Your task to perform on an android device: Open location settings Image 0: 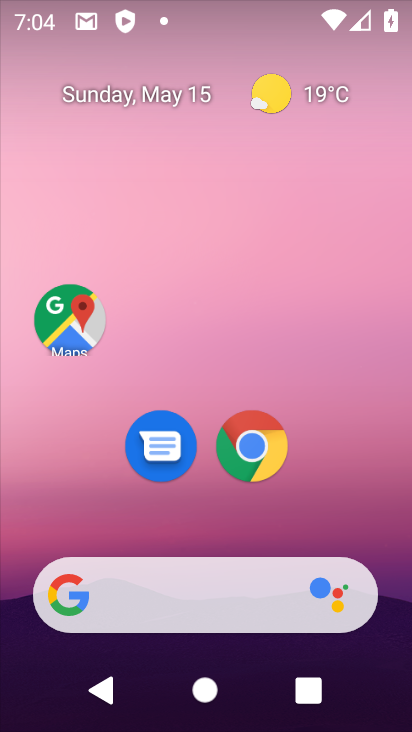
Step 0: drag from (249, 647) to (186, 66)
Your task to perform on an android device: Open location settings Image 1: 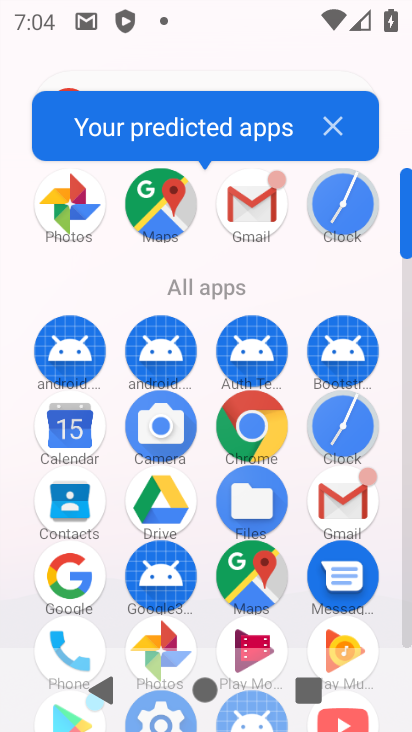
Step 1: drag from (201, 614) to (190, 408)
Your task to perform on an android device: Open location settings Image 2: 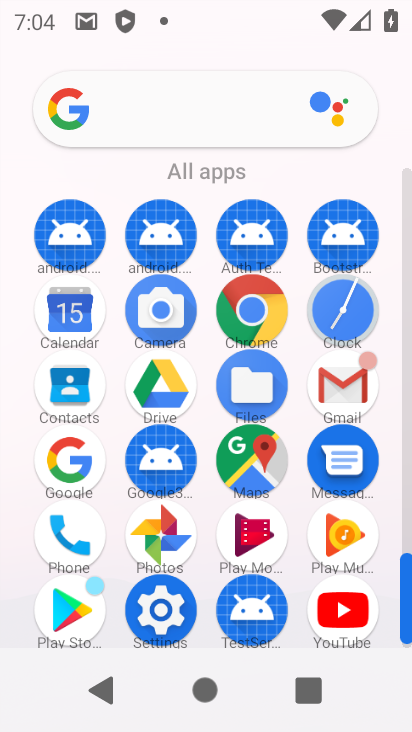
Step 2: click (158, 613)
Your task to perform on an android device: Open location settings Image 3: 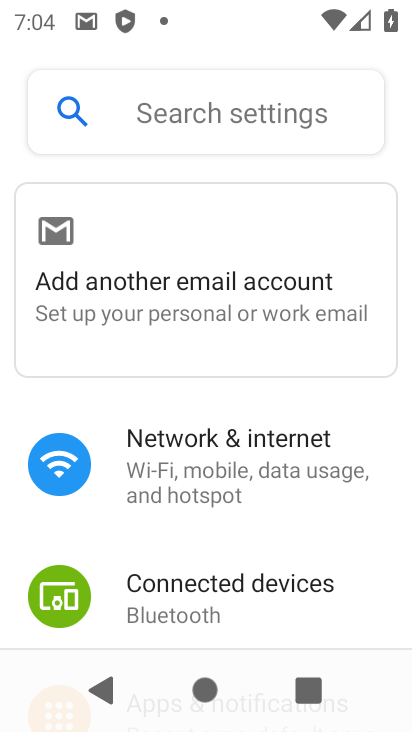
Step 3: click (143, 111)
Your task to perform on an android device: Open location settings Image 4: 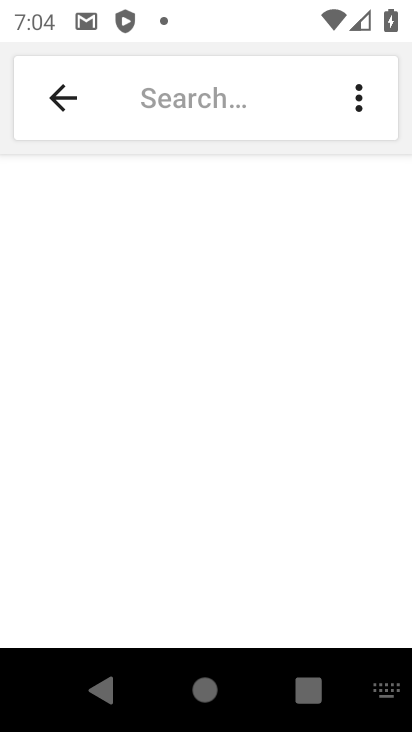
Step 4: click (378, 697)
Your task to perform on an android device: Open location settings Image 5: 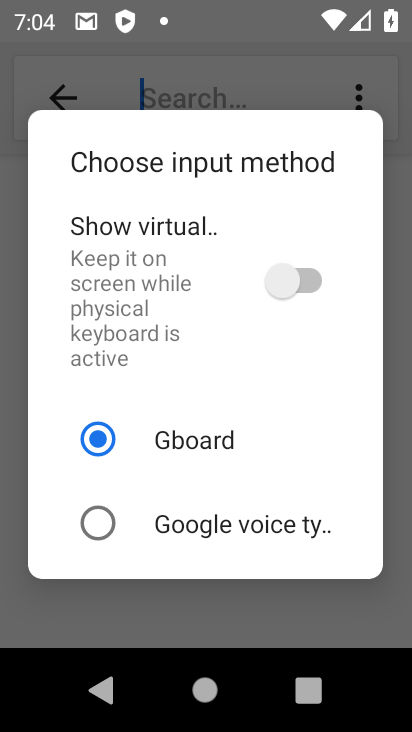
Step 5: click (300, 280)
Your task to perform on an android device: Open location settings Image 6: 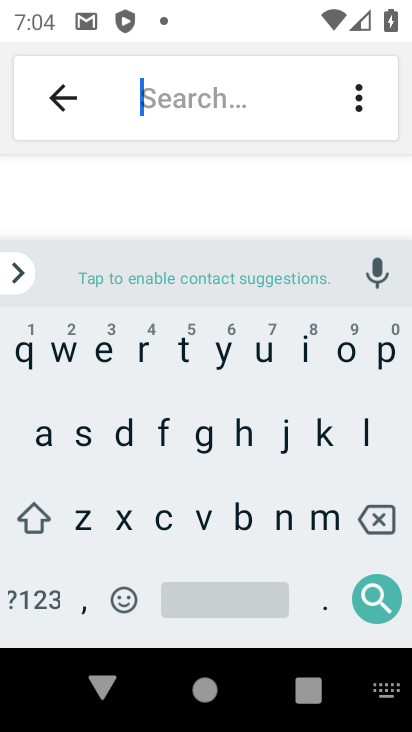
Step 6: click (362, 431)
Your task to perform on an android device: Open location settings Image 7: 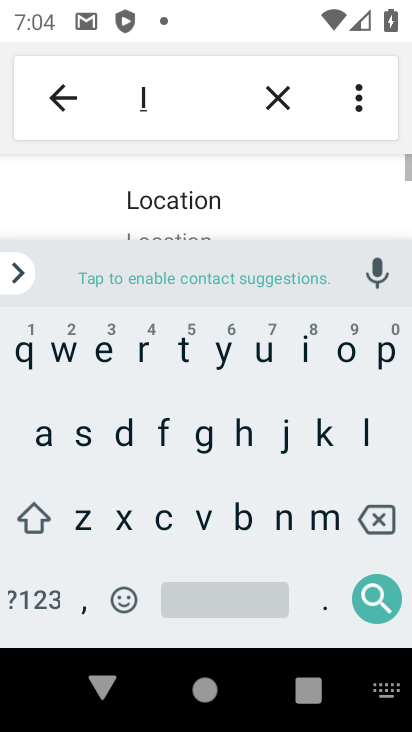
Step 7: click (332, 357)
Your task to perform on an android device: Open location settings Image 8: 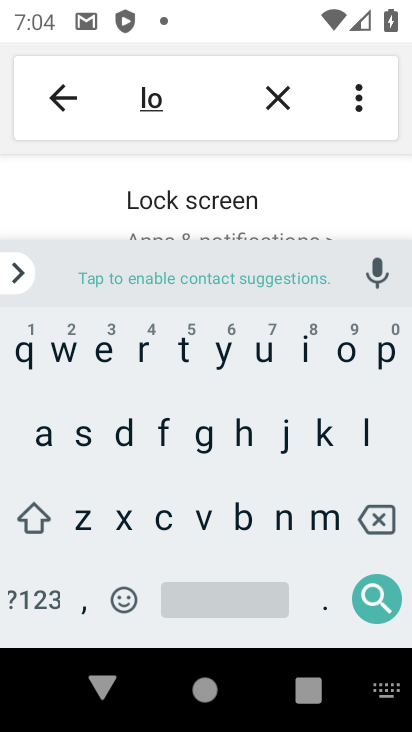
Step 8: press back button
Your task to perform on an android device: Open location settings Image 9: 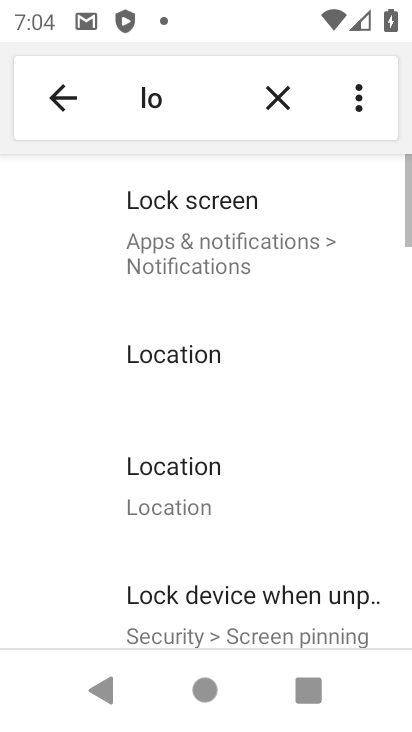
Step 9: click (175, 477)
Your task to perform on an android device: Open location settings Image 10: 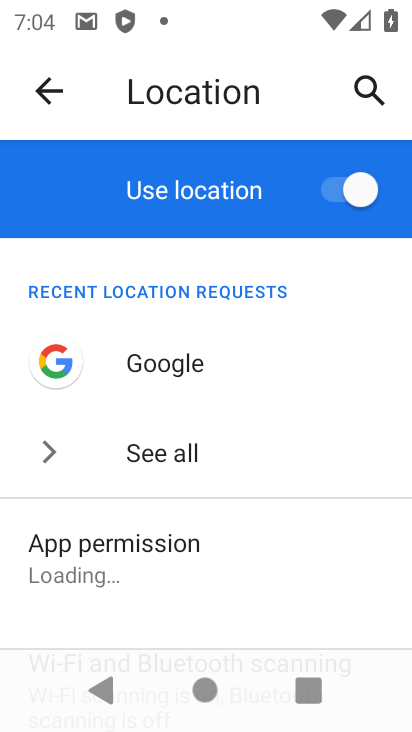
Step 10: task complete